Your task to perform on an android device: Open display settings Image 0: 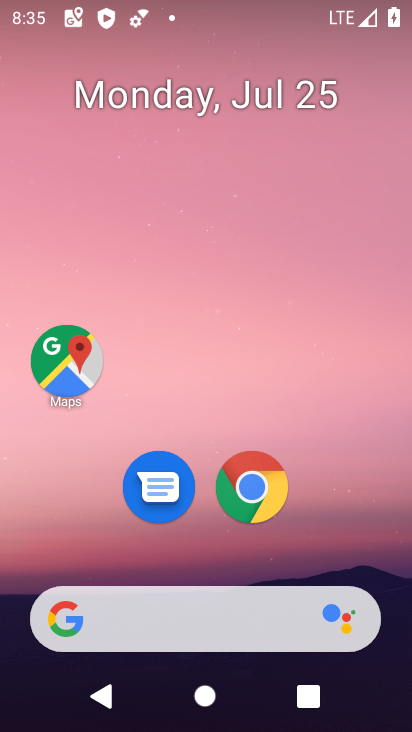
Step 0: drag from (162, 525) to (260, 0)
Your task to perform on an android device: Open display settings Image 1: 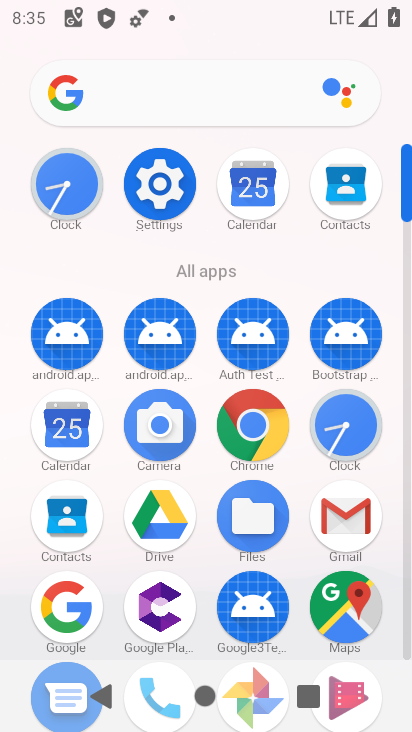
Step 1: click (140, 238)
Your task to perform on an android device: Open display settings Image 2: 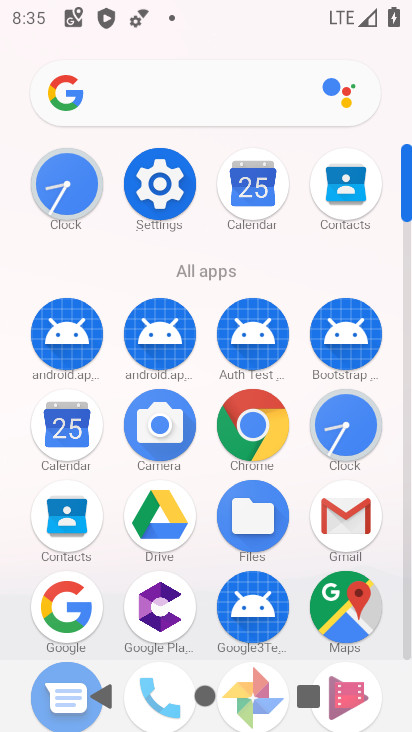
Step 2: click (140, 210)
Your task to perform on an android device: Open display settings Image 3: 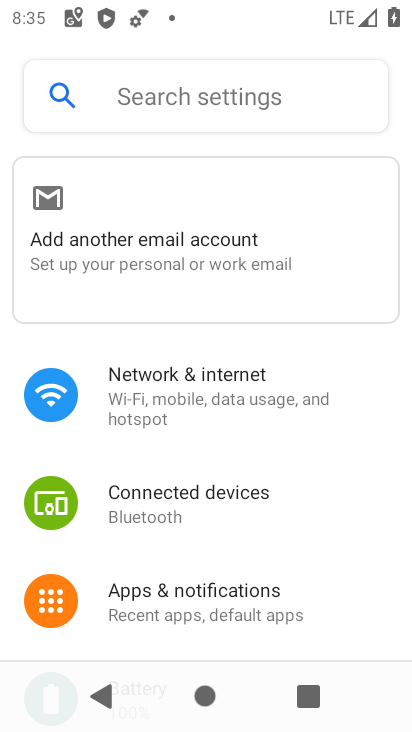
Step 3: drag from (214, 560) to (262, 42)
Your task to perform on an android device: Open display settings Image 4: 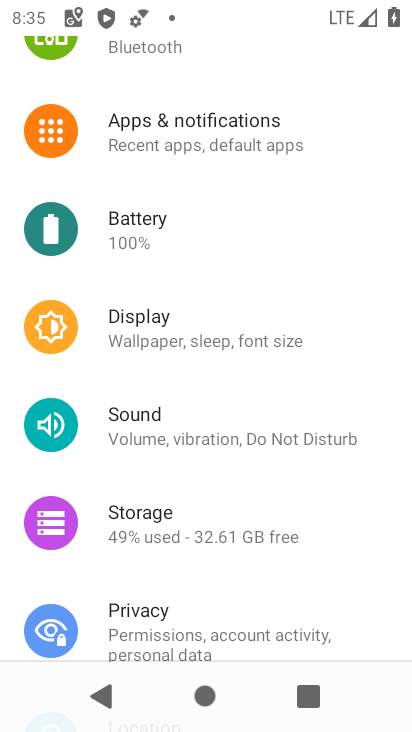
Step 4: click (178, 327)
Your task to perform on an android device: Open display settings Image 5: 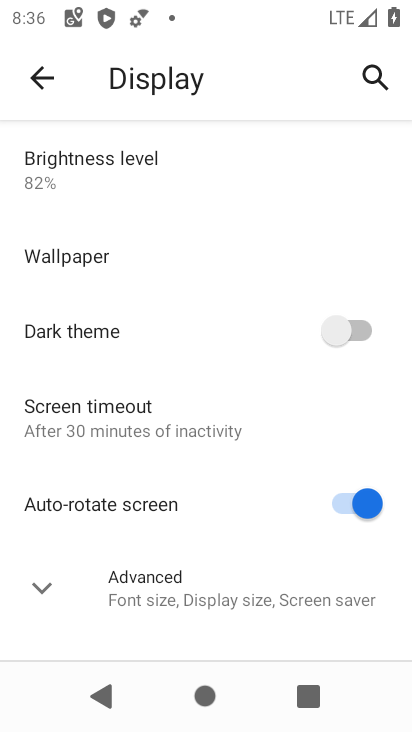
Step 5: task complete